Your task to perform on an android device: Go to CNN.com Image 0: 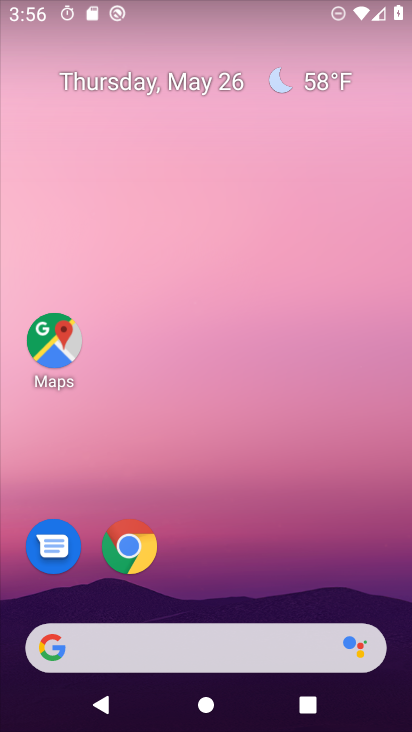
Step 0: click (120, 539)
Your task to perform on an android device: Go to CNN.com Image 1: 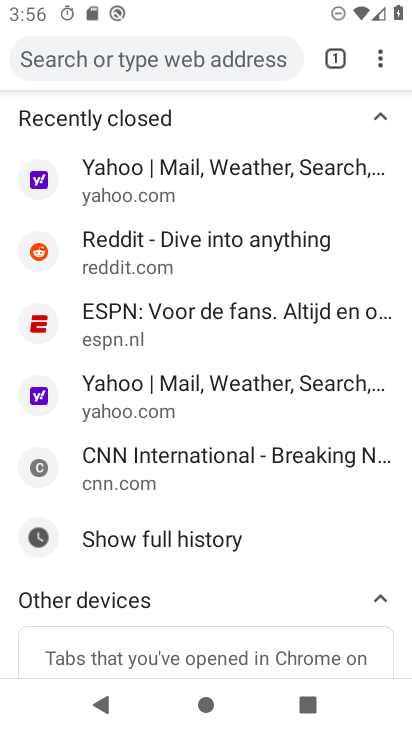
Step 1: click (340, 52)
Your task to perform on an android device: Go to CNN.com Image 2: 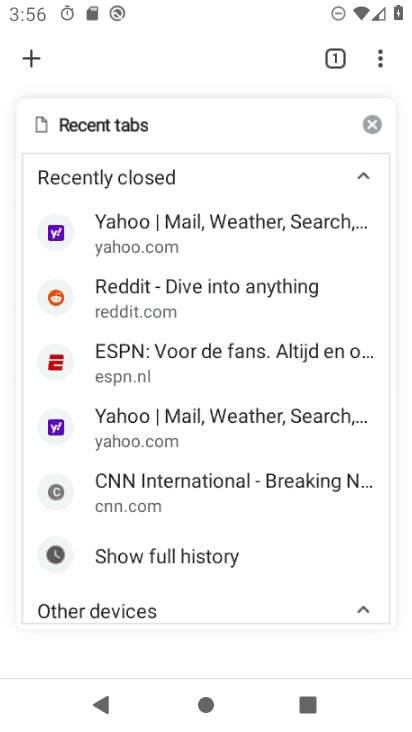
Step 2: click (367, 123)
Your task to perform on an android device: Go to CNN.com Image 3: 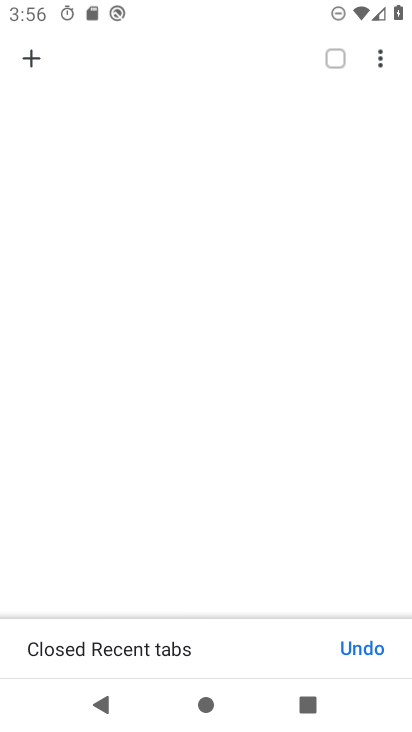
Step 3: click (36, 58)
Your task to perform on an android device: Go to CNN.com Image 4: 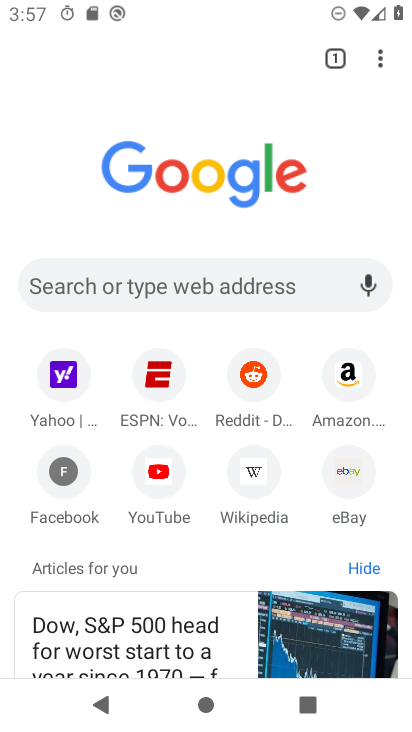
Step 4: click (128, 279)
Your task to perform on an android device: Go to CNN.com Image 5: 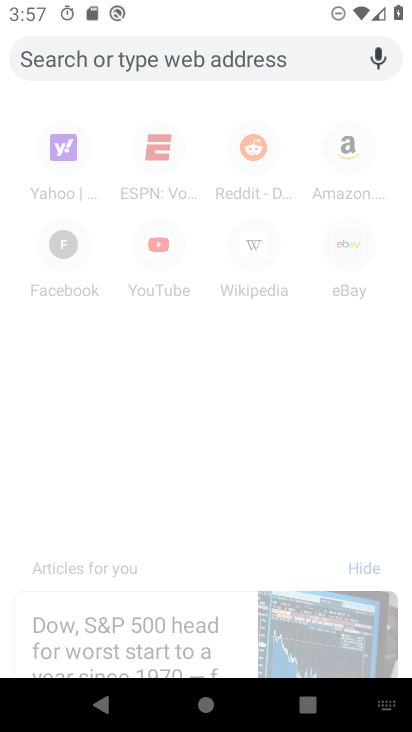
Step 5: type "cnn.com"
Your task to perform on an android device: Go to CNN.com Image 6: 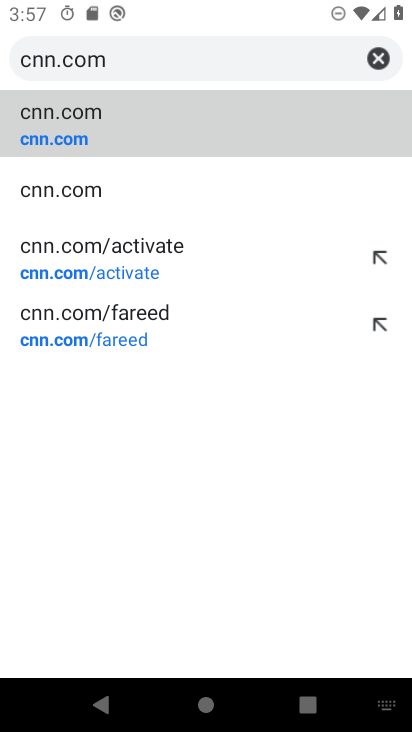
Step 6: click (106, 126)
Your task to perform on an android device: Go to CNN.com Image 7: 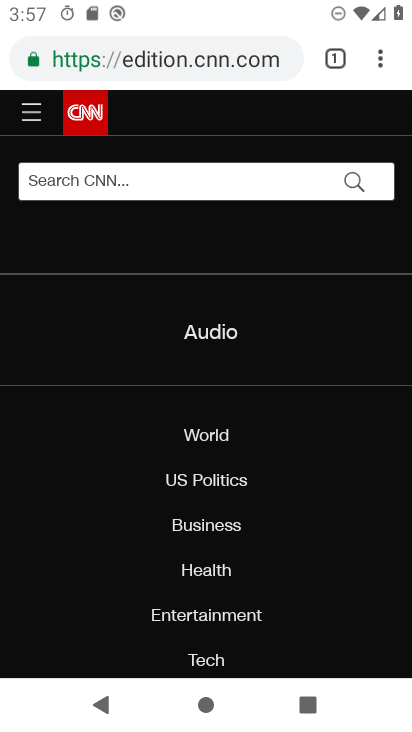
Step 7: task complete